Your task to perform on an android device: install app "Google Pay: Save, Pay, Manage" Image 0: 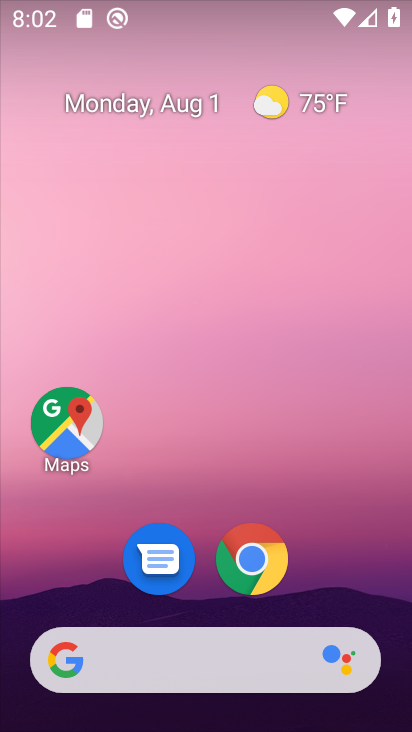
Step 0: drag from (210, 645) to (244, 225)
Your task to perform on an android device: install app "Google Pay: Save, Pay, Manage" Image 1: 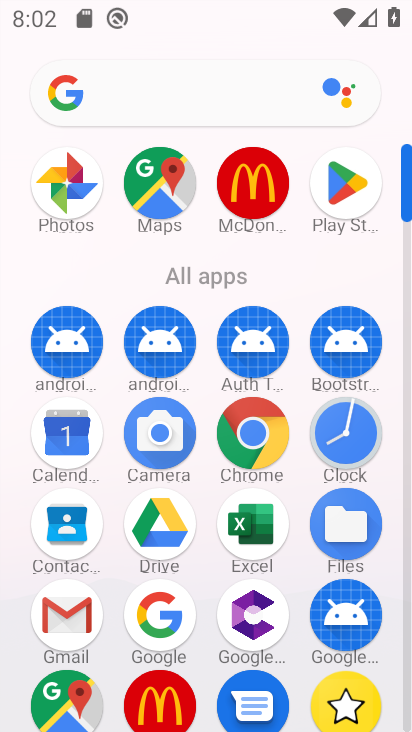
Step 1: click (348, 197)
Your task to perform on an android device: install app "Google Pay: Save, Pay, Manage" Image 2: 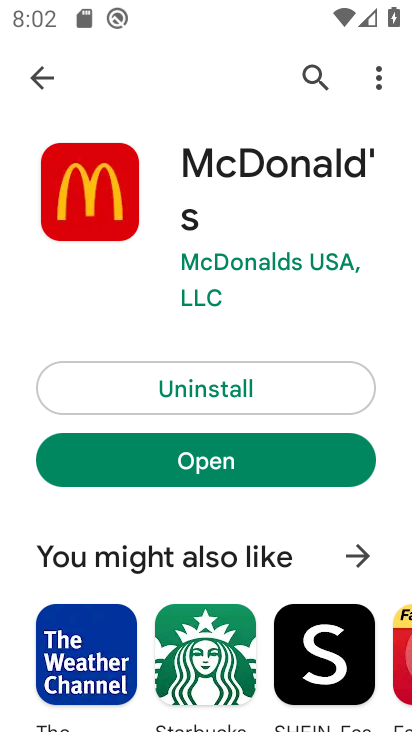
Step 2: click (321, 84)
Your task to perform on an android device: install app "Google Pay: Save, Pay, Manage" Image 3: 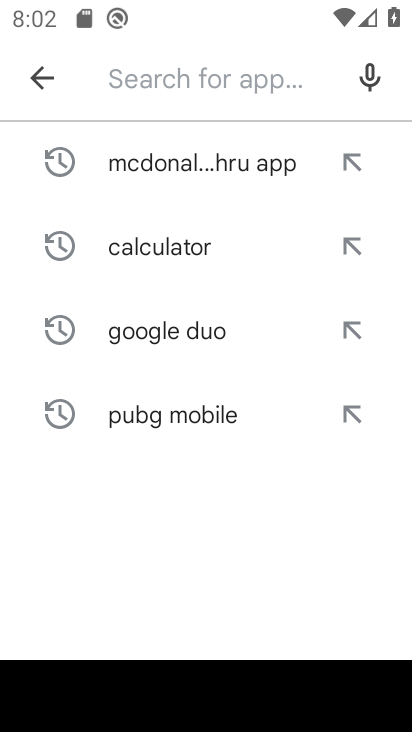
Step 3: type "Google Pay: Save, Pay, Manage"
Your task to perform on an android device: install app "Google Pay: Save, Pay, Manage" Image 4: 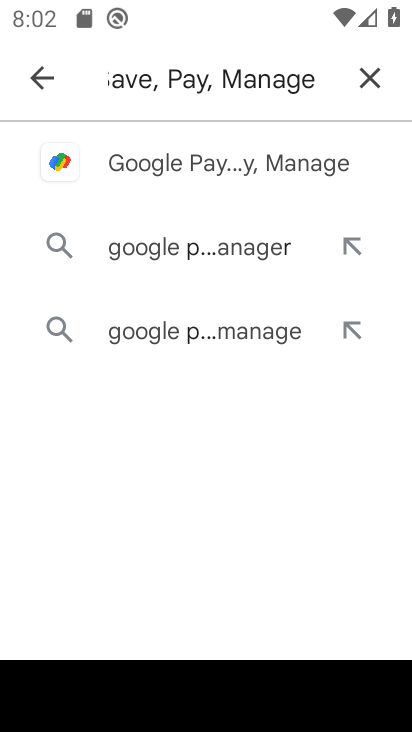
Step 4: click (278, 163)
Your task to perform on an android device: install app "Google Pay: Save, Pay, Manage" Image 5: 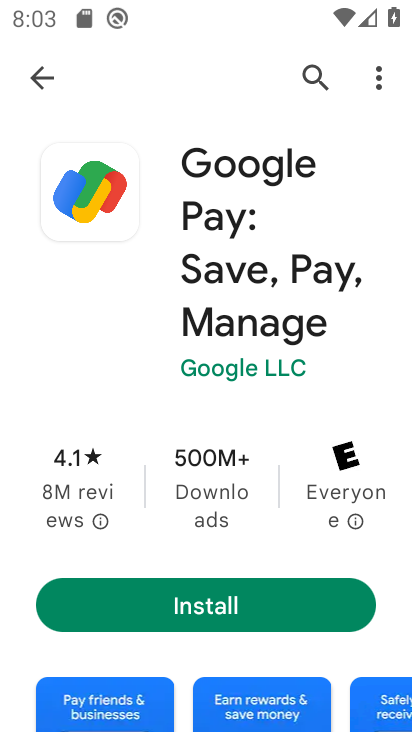
Step 5: click (256, 613)
Your task to perform on an android device: install app "Google Pay: Save, Pay, Manage" Image 6: 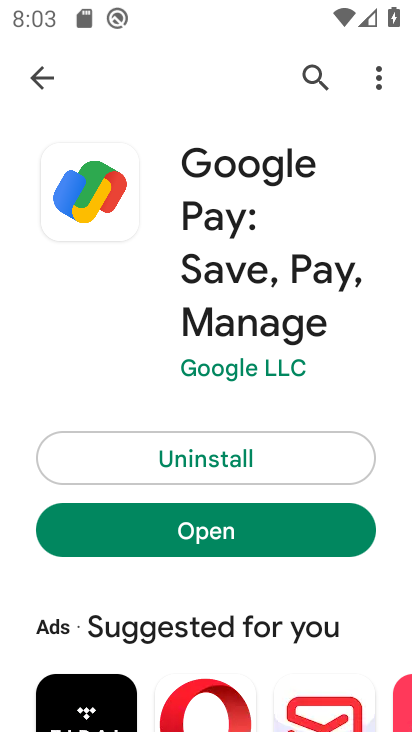
Step 6: task complete